Your task to perform on an android device: Open Google Chrome and open the bookmarks view Image 0: 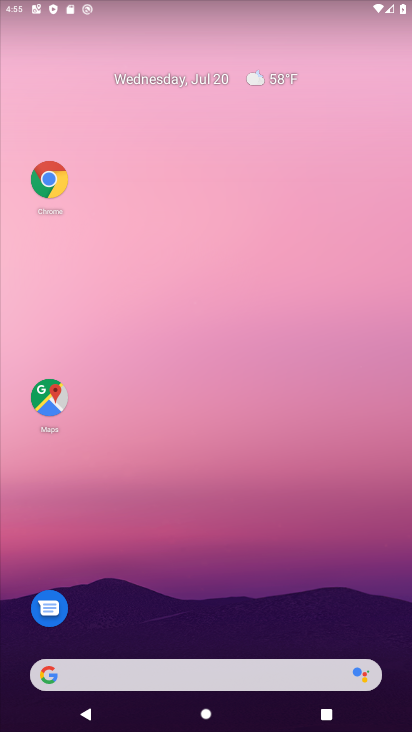
Step 0: drag from (206, 621) to (81, 83)
Your task to perform on an android device: Open Google Chrome and open the bookmarks view Image 1: 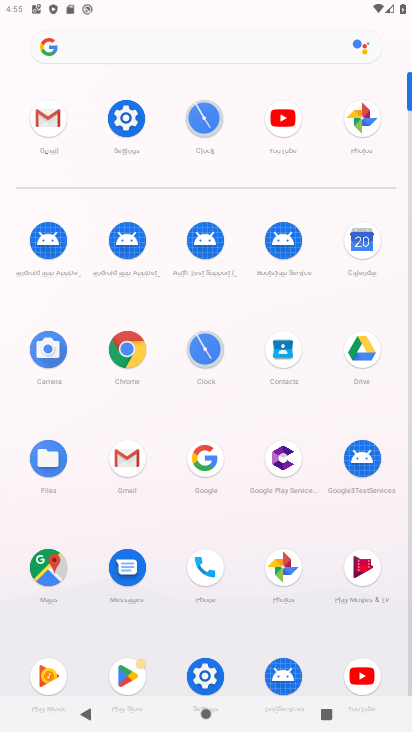
Step 1: click (133, 361)
Your task to perform on an android device: Open Google Chrome and open the bookmarks view Image 2: 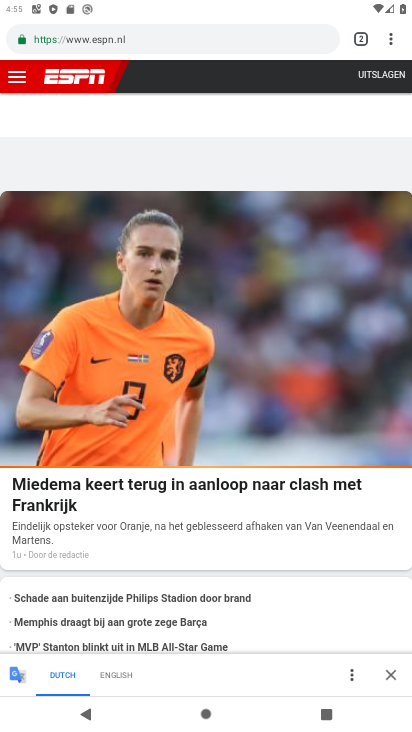
Step 2: click (395, 36)
Your task to perform on an android device: Open Google Chrome and open the bookmarks view Image 3: 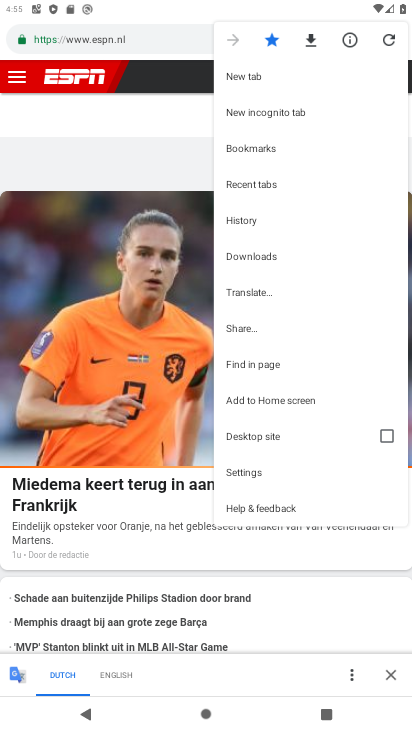
Step 3: click (249, 152)
Your task to perform on an android device: Open Google Chrome and open the bookmarks view Image 4: 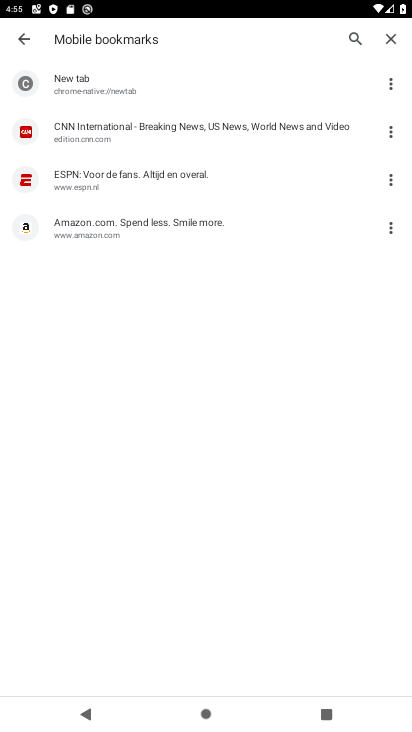
Step 4: task complete